Your task to perform on an android device: open app "LiveIn - Share Your Moment" (install if not already installed) and enter user name: "certifies@gmail.com" and password: "compartmented" Image 0: 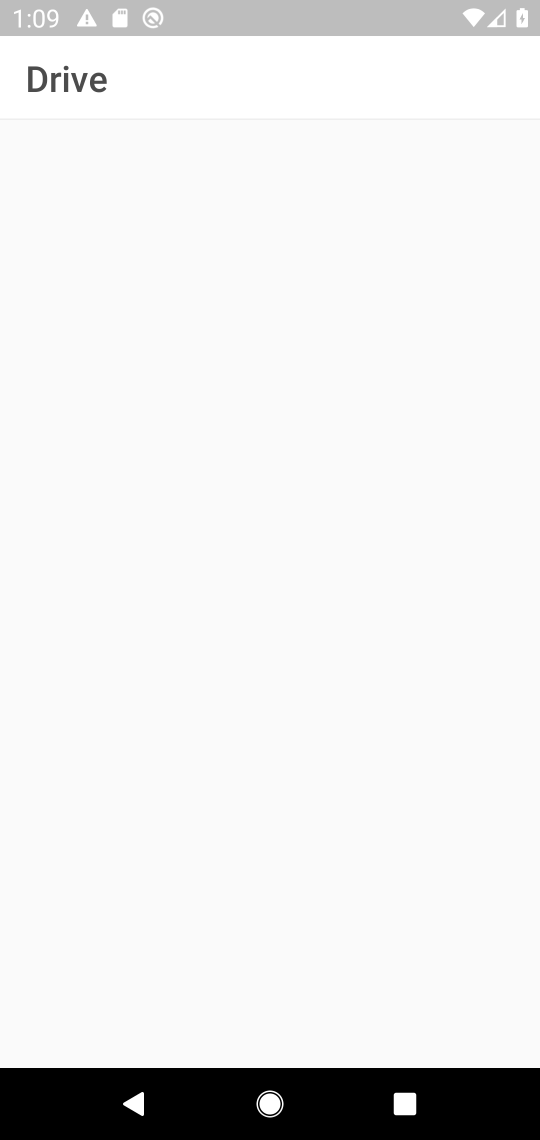
Step 0: press back button
Your task to perform on an android device: open app "LiveIn - Share Your Moment" (install if not already installed) and enter user name: "certifies@gmail.com" and password: "compartmented" Image 1: 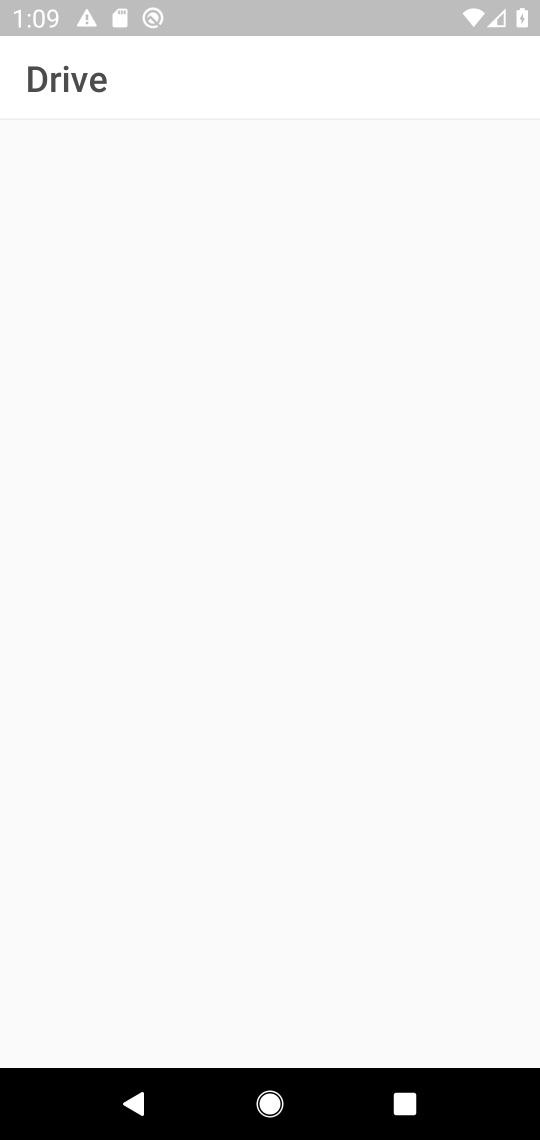
Step 1: press back button
Your task to perform on an android device: open app "LiveIn - Share Your Moment" (install if not already installed) and enter user name: "certifies@gmail.com" and password: "compartmented" Image 2: 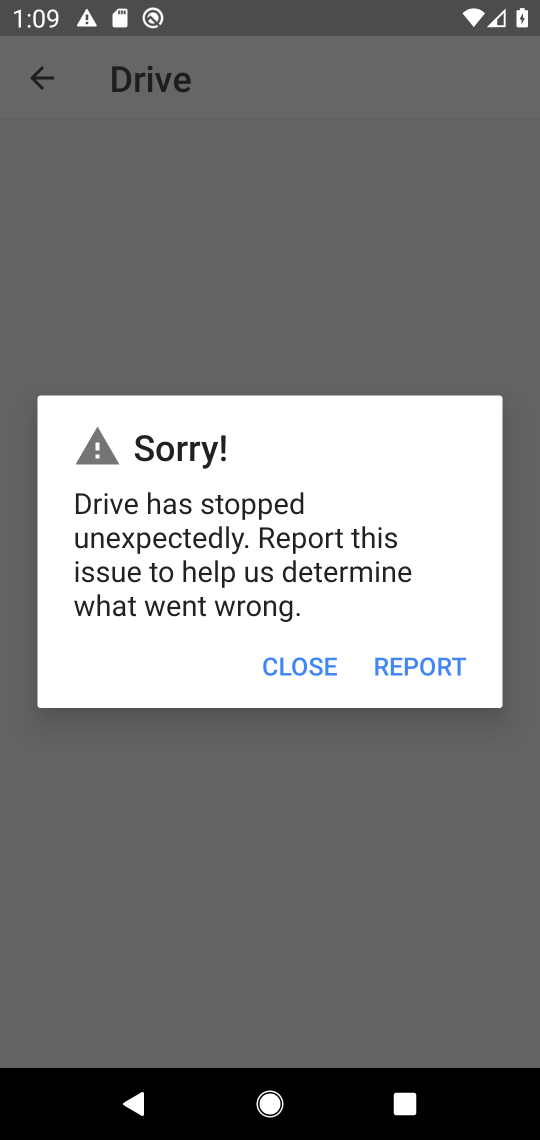
Step 2: press home button
Your task to perform on an android device: open app "LiveIn - Share Your Moment" (install if not already installed) and enter user name: "certifies@gmail.com" and password: "compartmented" Image 3: 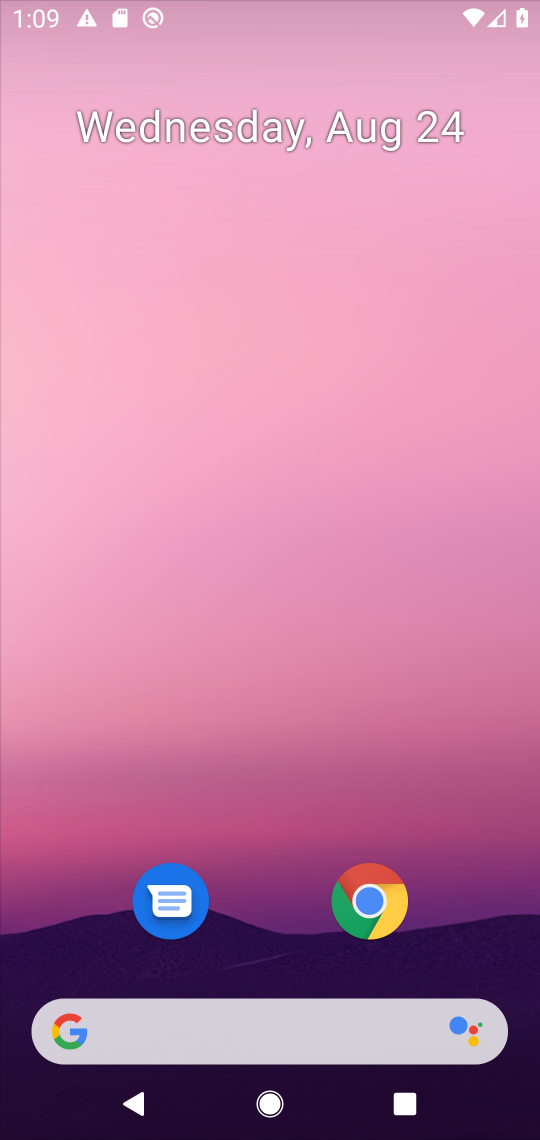
Step 3: press home button
Your task to perform on an android device: open app "LiveIn - Share Your Moment" (install if not already installed) and enter user name: "certifies@gmail.com" and password: "compartmented" Image 4: 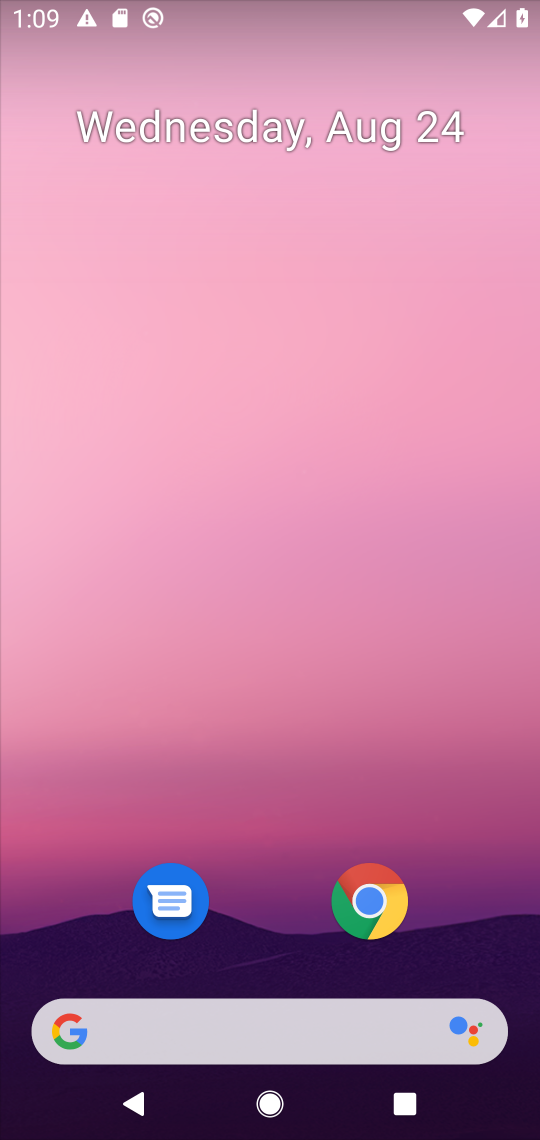
Step 4: drag from (269, 819) to (393, 24)
Your task to perform on an android device: open app "LiveIn - Share Your Moment" (install if not already installed) and enter user name: "certifies@gmail.com" and password: "compartmented" Image 5: 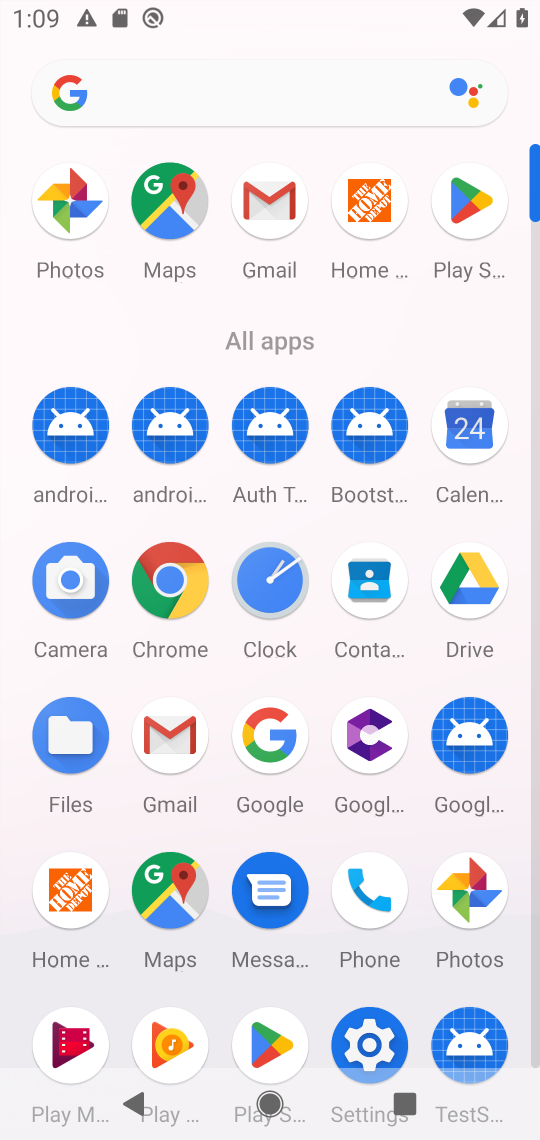
Step 5: click (461, 215)
Your task to perform on an android device: open app "LiveIn - Share Your Moment" (install if not already installed) and enter user name: "certifies@gmail.com" and password: "compartmented" Image 6: 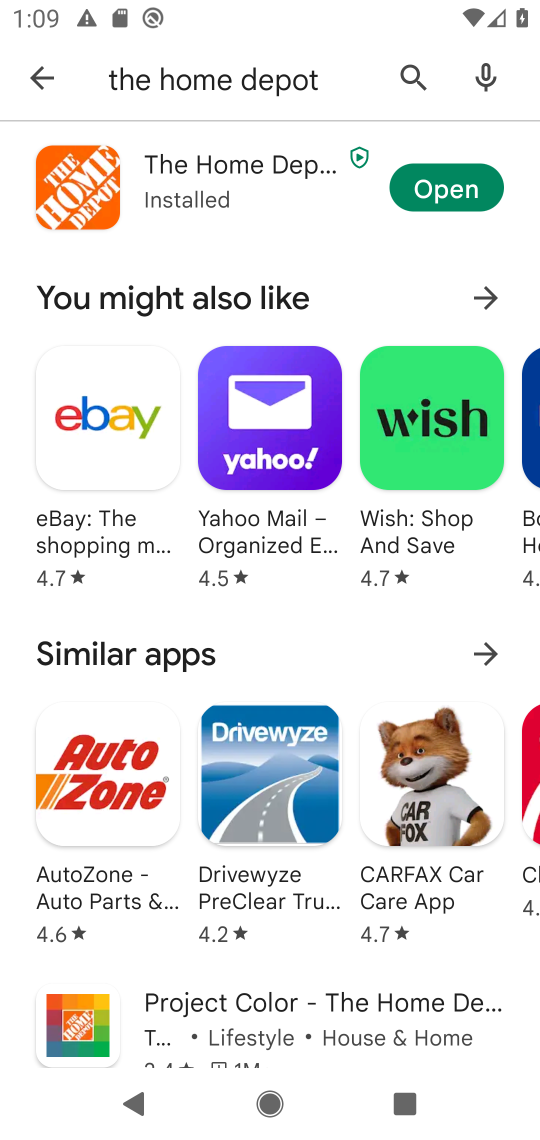
Step 6: click (403, 72)
Your task to perform on an android device: open app "LiveIn - Share Your Moment" (install if not already installed) and enter user name: "certifies@gmail.com" and password: "compartmented" Image 7: 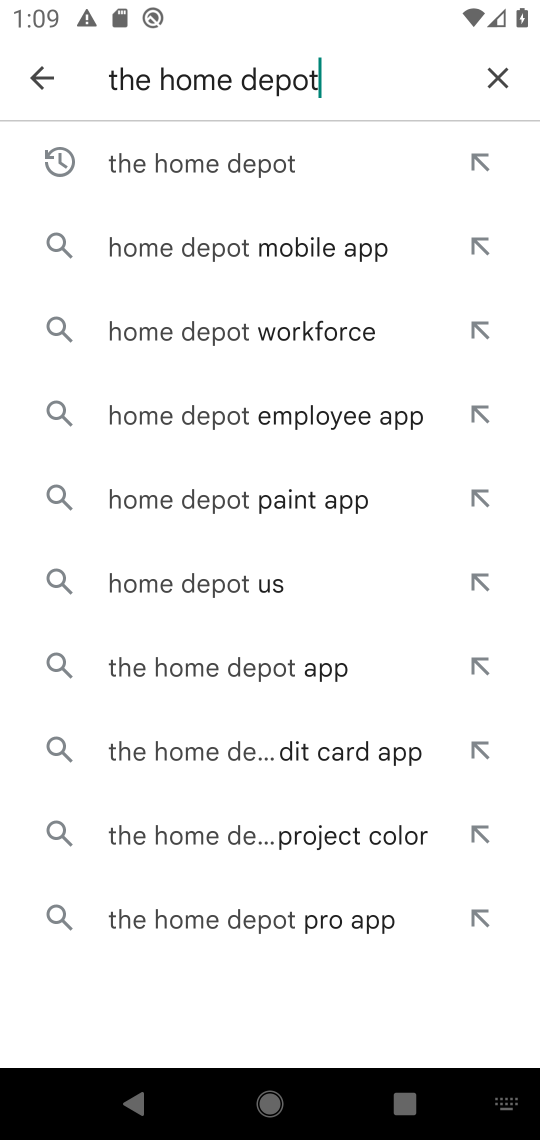
Step 7: click (483, 67)
Your task to perform on an android device: open app "LiveIn - Share Your Moment" (install if not already installed) and enter user name: "certifies@gmail.com" and password: "compartmented" Image 8: 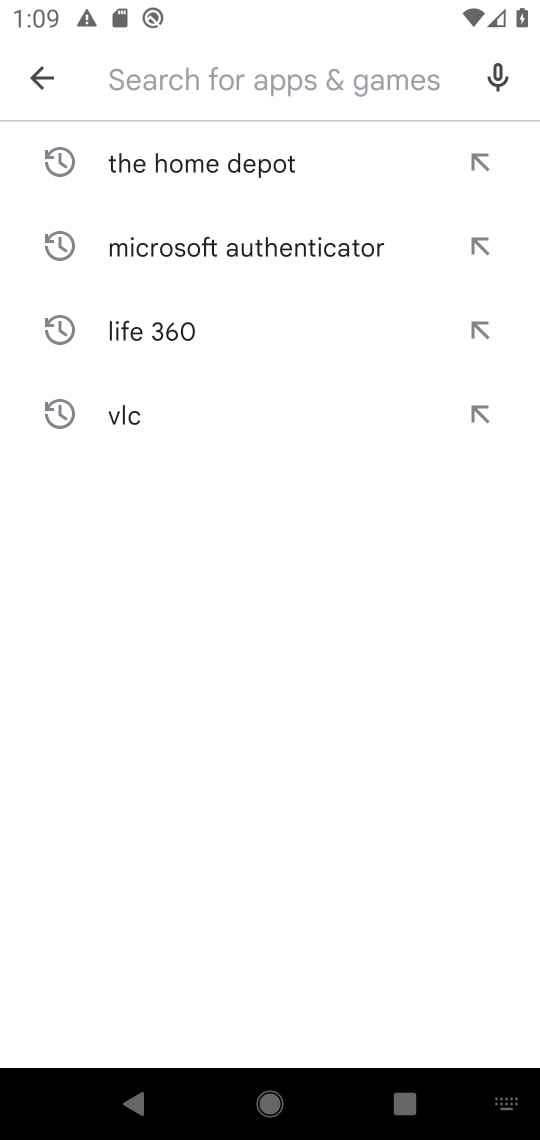
Step 8: click (184, 100)
Your task to perform on an android device: open app "LiveIn - Share Your Moment" (install if not already installed) and enter user name: "certifies@gmail.com" and password: "compartmented" Image 9: 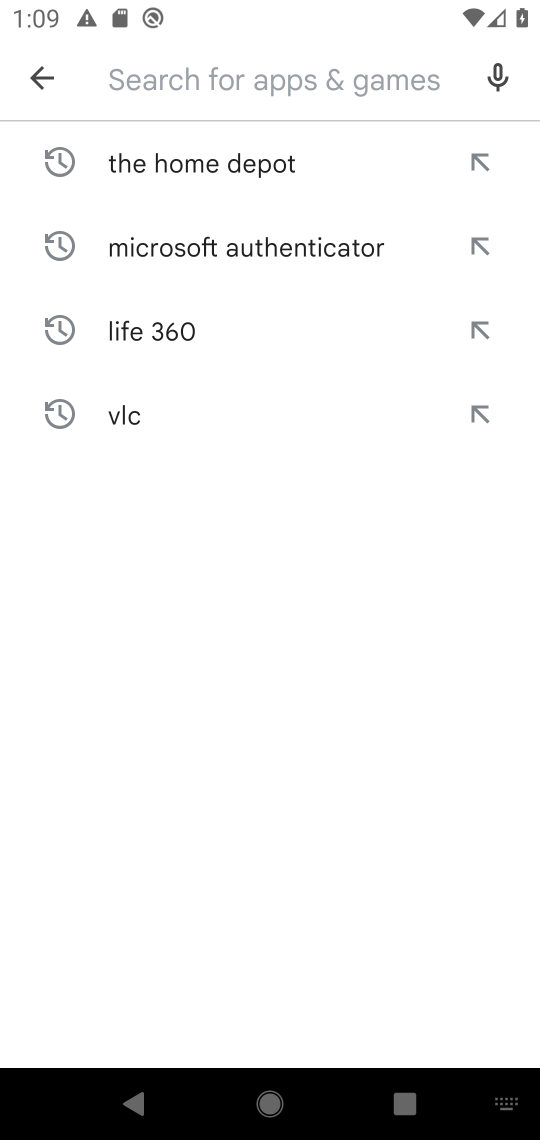
Step 9: type "LiveIn"
Your task to perform on an android device: open app "LiveIn - Share Your Moment" (install if not already installed) and enter user name: "certifies@gmail.com" and password: "compartmented" Image 10: 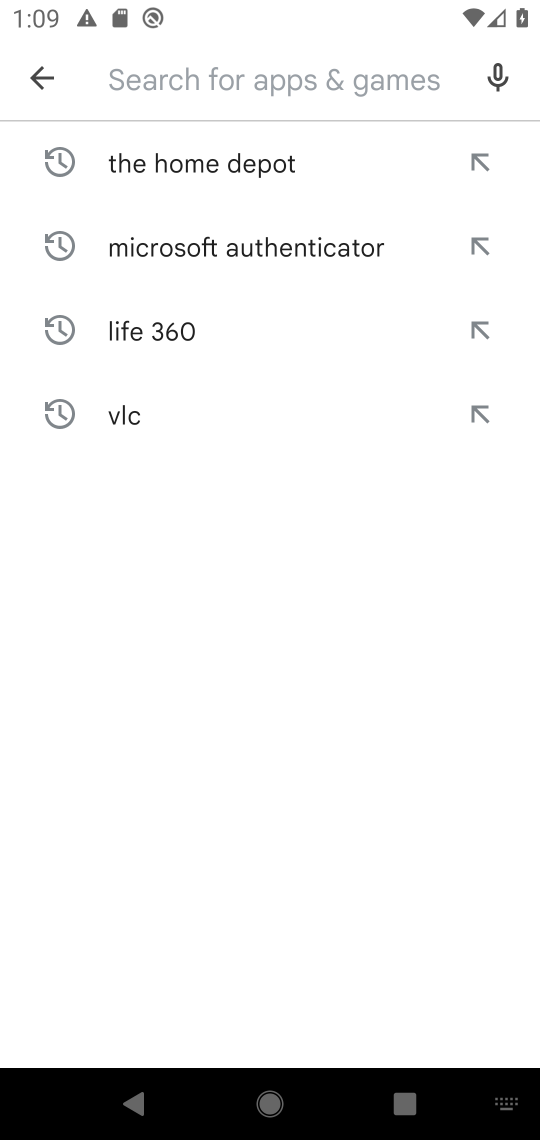
Step 10: click (298, 688)
Your task to perform on an android device: open app "LiveIn - Share Your Moment" (install if not already installed) and enter user name: "certifies@gmail.com" and password: "compartmented" Image 11: 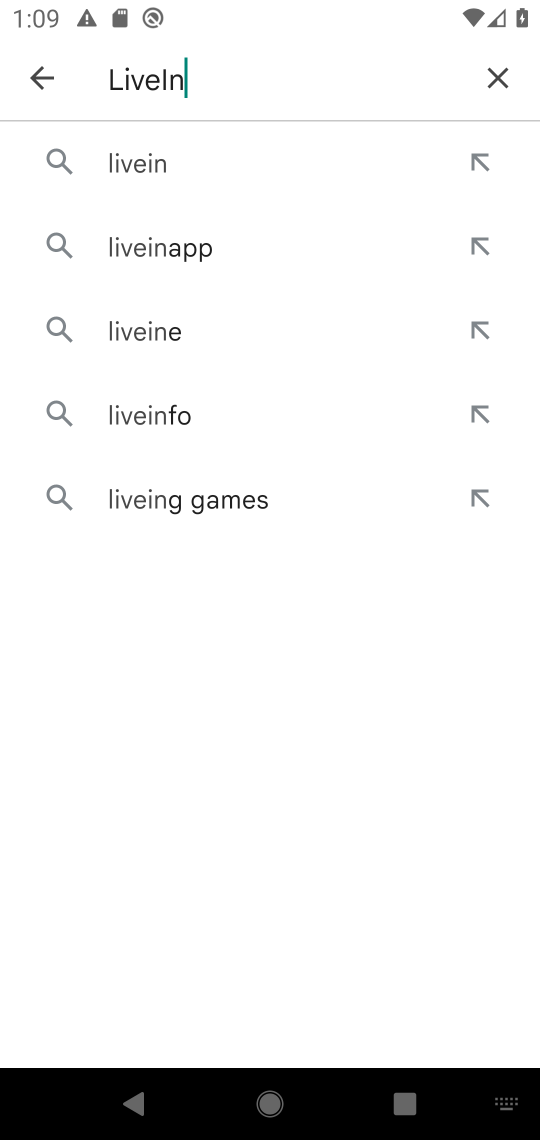
Step 11: click (162, 156)
Your task to perform on an android device: open app "LiveIn - Share Your Moment" (install if not already installed) and enter user name: "certifies@gmail.com" and password: "compartmented" Image 12: 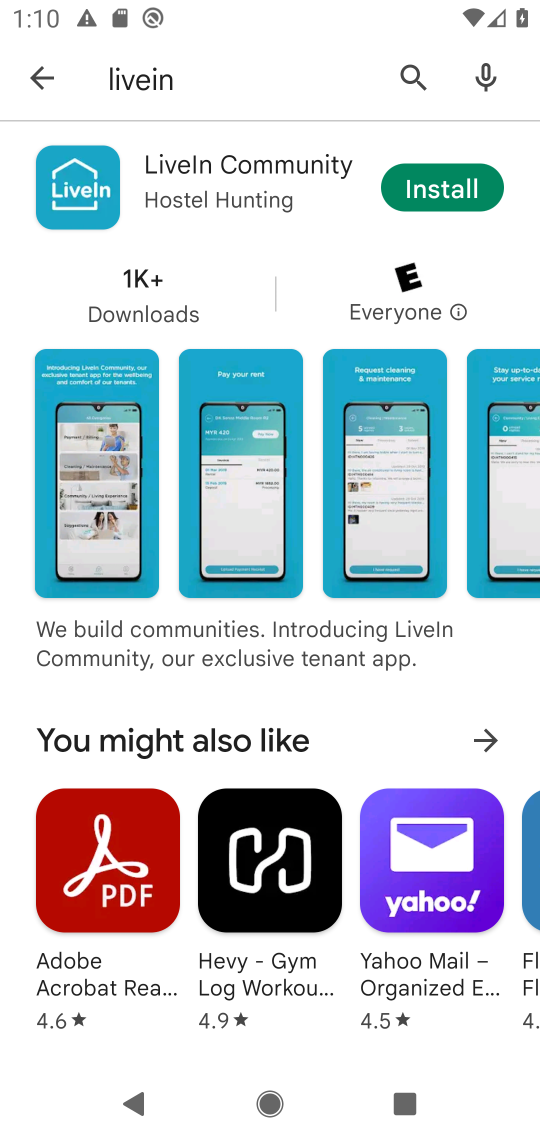
Step 12: click (443, 201)
Your task to perform on an android device: open app "LiveIn - Share Your Moment" (install if not already installed) and enter user name: "certifies@gmail.com" and password: "compartmented" Image 13: 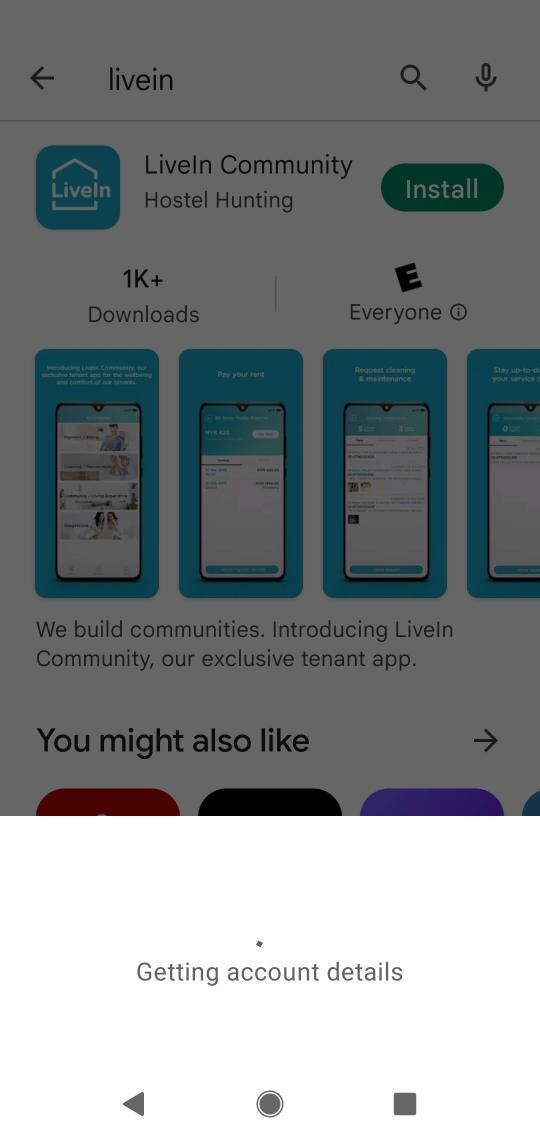
Step 13: click (433, 199)
Your task to perform on an android device: open app "LiveIn - Share Your Moment" (install if not already installed) and enter user name: "certifies@gmail.com" and password: "compartmented" Image 14: 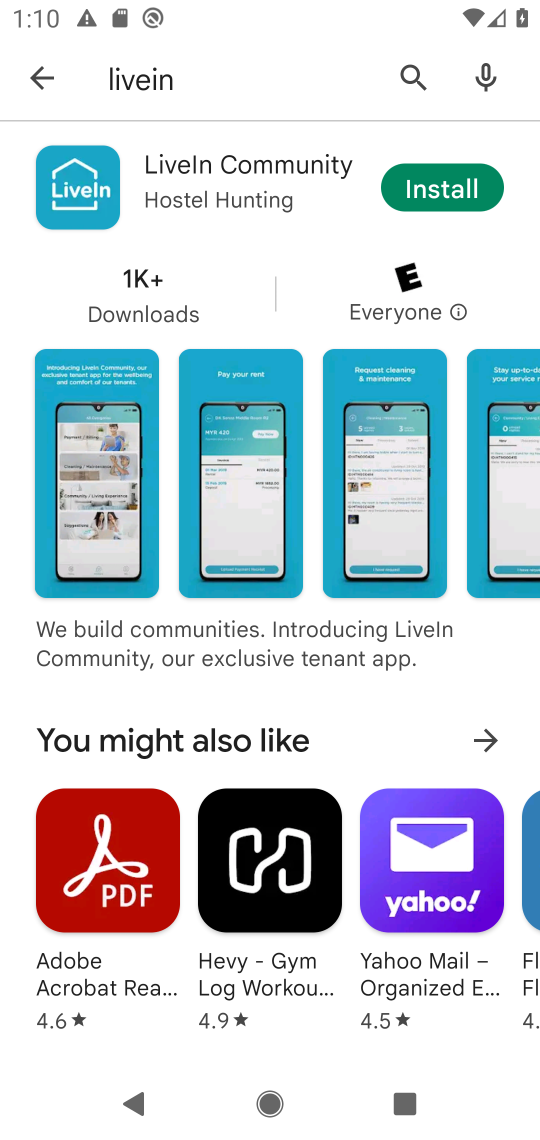
Step 14: click (410, 198)
Your task to perform on an android device: open app "LiveIn - Share Your Moment" (install if not already installed) and enter user name: "certifies@gmail.com" and password: "compartmented" Image 15: 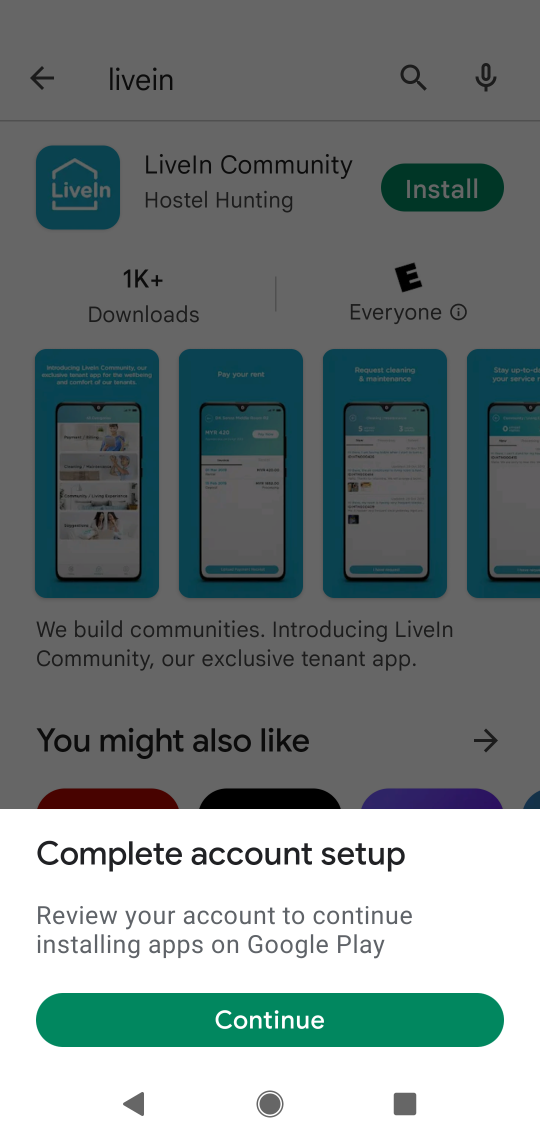
Step 15: click (190, 1010)
Your task to perform on an android device: open app "LiveIn - Share Your Moment" (install if not already installed) and enter user name: "certifies@gmail.com" and password: "compartmented" Image 16: 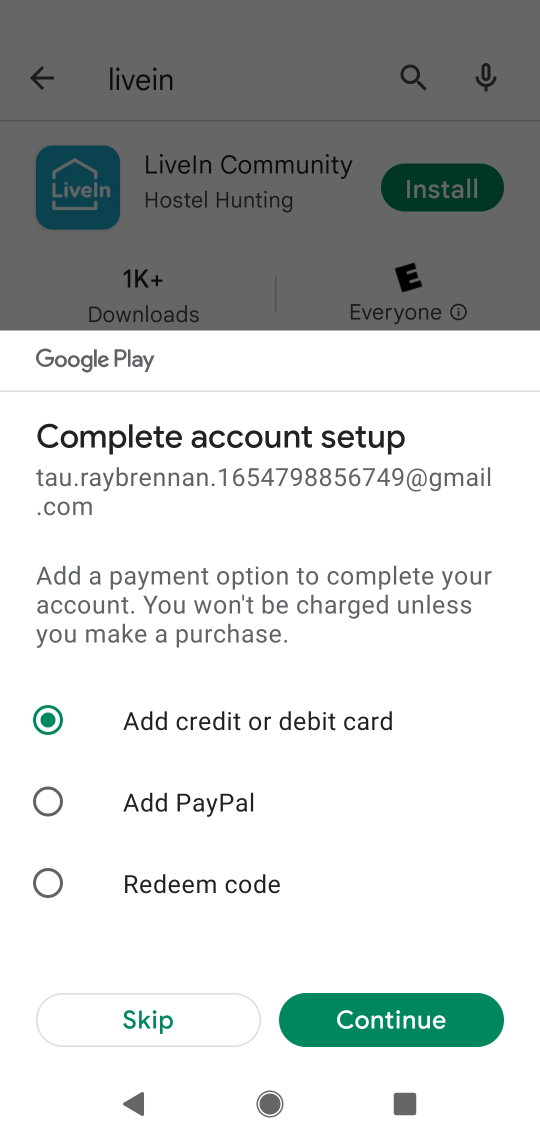
Step 16: click (132, 1030)
Your task to perform on an android device: open app "LiveIn - Share Your Moment" (install if not already installed) and enter user name: "certifies@gmail.com" and password: "compartmented" Image 17: 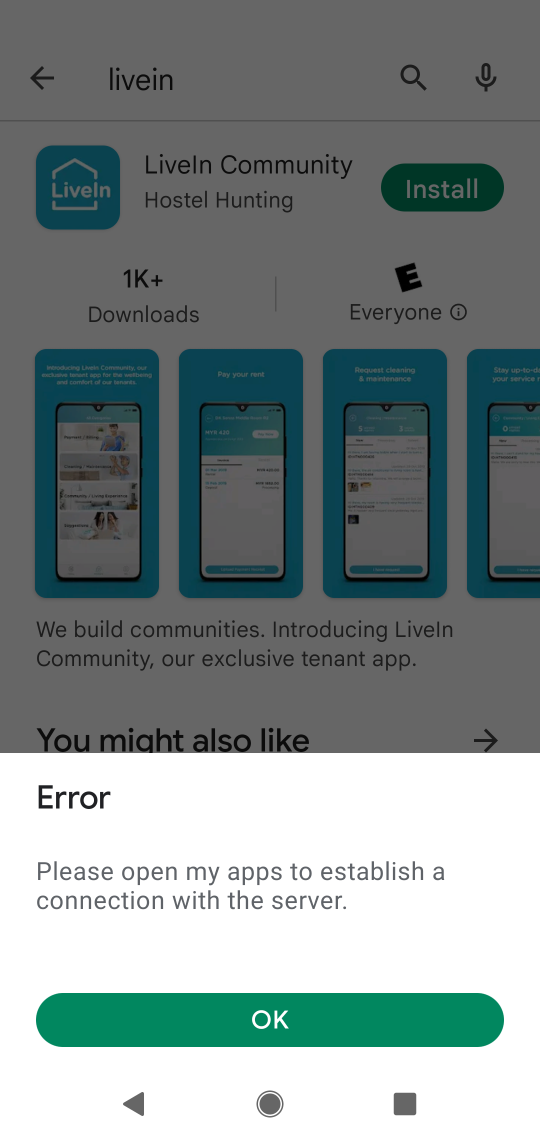
Step 17: click (206, 1027)
Your task to perform on an android device: open app "LiveIn - Share Your Moment" (install if not already installed) and enter user name: "certifies@gmail.com" and password: "compartmented" Image 18: 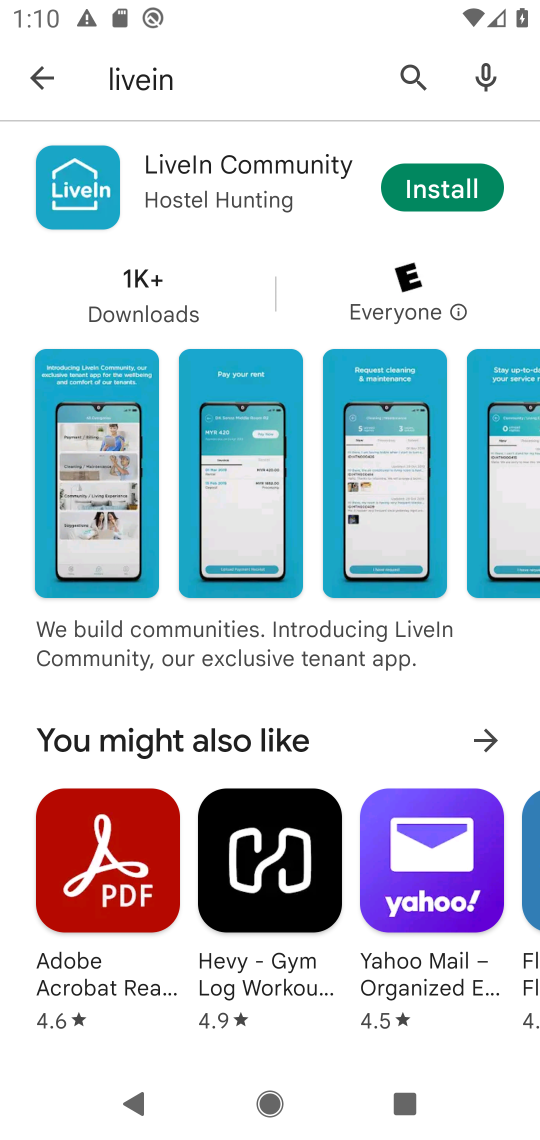
Step 18: task complete